Your task to perform on an android device: visit the assistant section in the google photos Image 0: 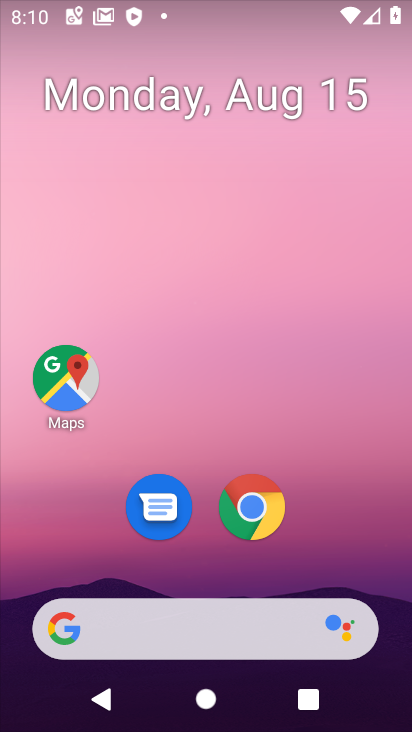
Step 0: drag from (203, 583) to (183, 48)
Your task to perform on an android device: visit the assistant section in the google photos Image 1: 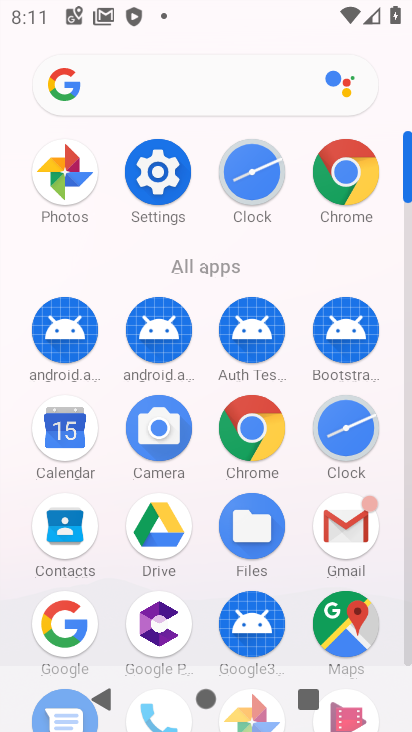
Step 1: click (57, 192)
Your task to perform on an android device: visit the assistant section in the google photos Image 2: 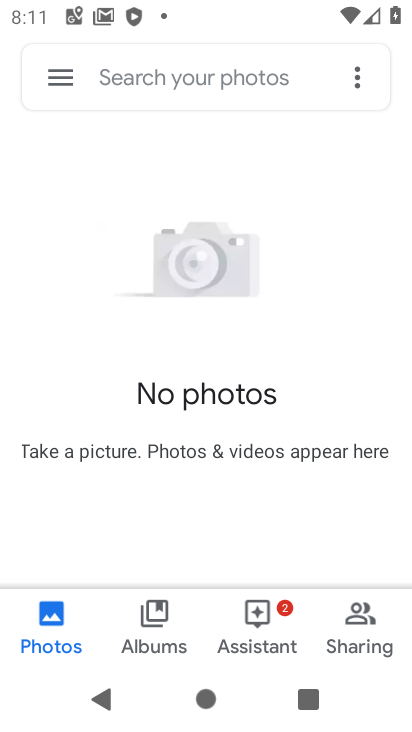
Step 2: click (274, 617)
Your task to perform on an android device: visit the assistant section in the google photos Image 3: 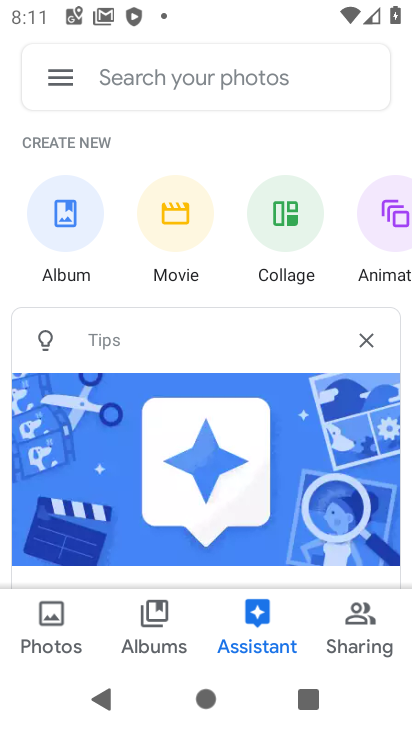
Step 3: task complete